Your task to perform on an android device: open chrome privacy settings Image 0: 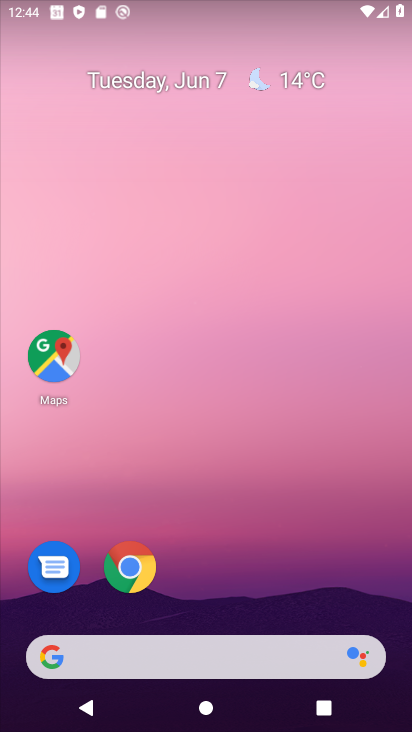
Step 0: click (125, 562)
Your task to perform on an android device: open chrome privacy settings Image 1: 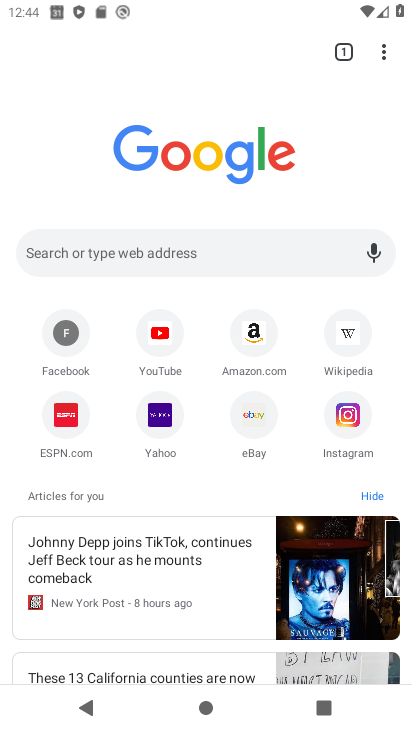
Step 1: click (397, 53)
Your task to perform on an android device: open chrome privacy settings Image 2: 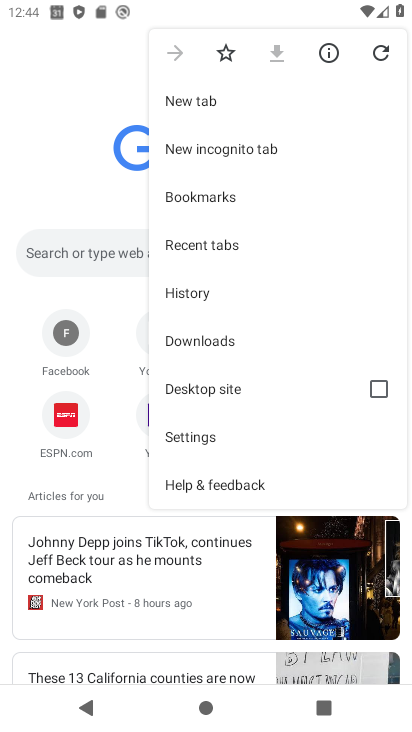
Step 2: click (222, 445)
Your task to perform on an android device: open chrome privacy settings Image 3: 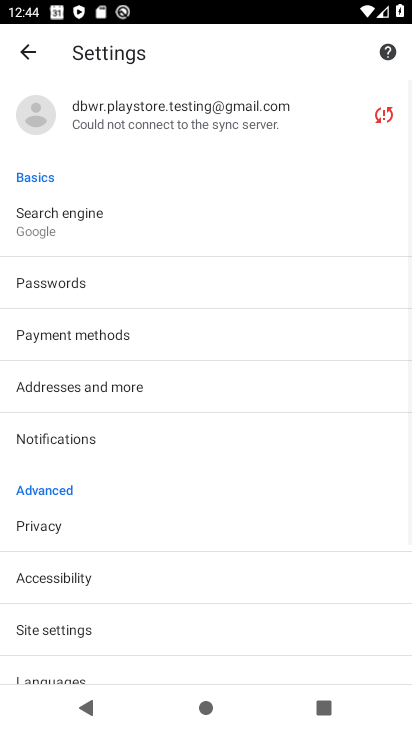
Step 3: click (77, 520)
Your task to perform on an android device: open chrome privacy settings Image 4: 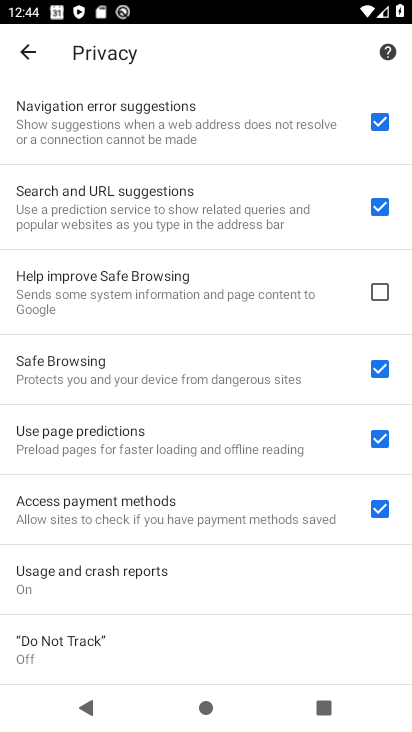
Step 4: task complete